Your task to perform on an android device: Open Maps and search for coffee Image 0: 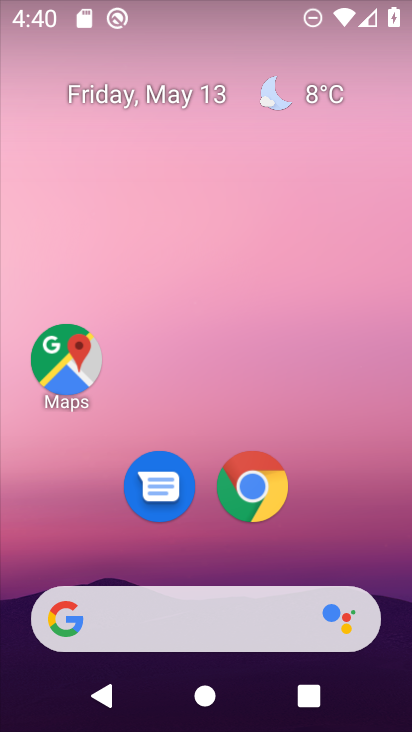
Step 0: click (90, 382)
Your task to perform on an android device: Open Maps and search for coffee Image 1: 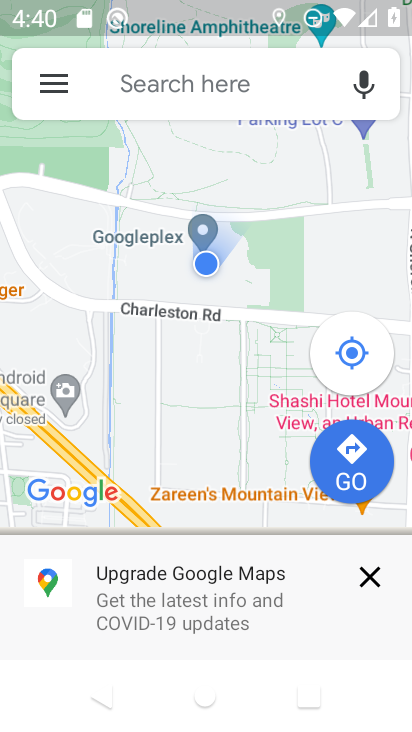
Step 1: click (61, 95)
Your task to perform on an android device: Open Maps and search for coffee Image 2: 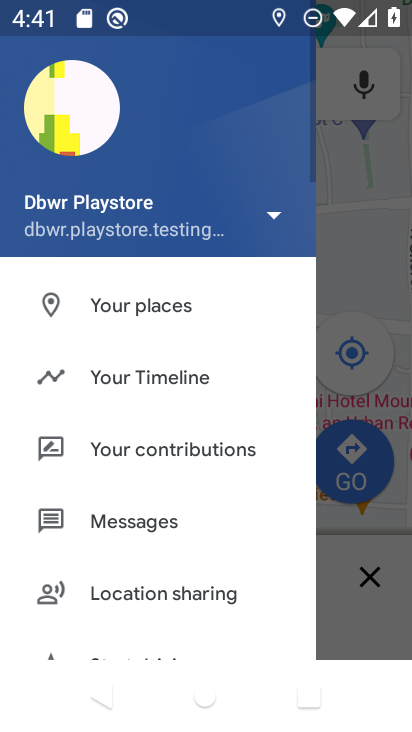
Step 2: click (345, 332)
Your task to perform on an android device: Open Maps and search for coffee Image 3: 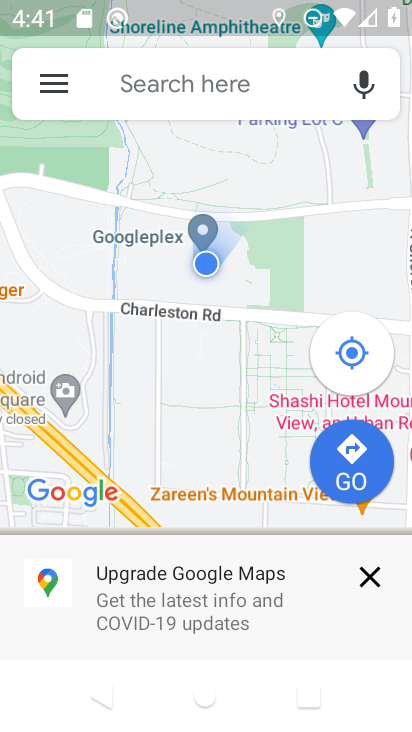
Step 3: click (326, 73)
Your task to perform on an android device: Open Maps and search for coffee Image 4: 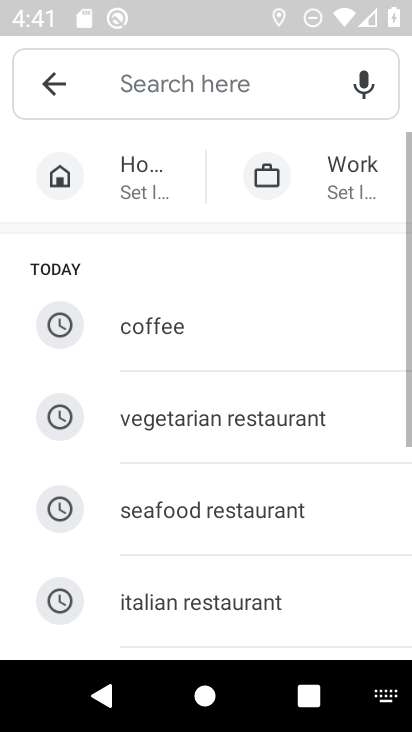
Step 4: click (267, 338)
Your task to perform on an android device: Open Maps and search for coffee Image 5: 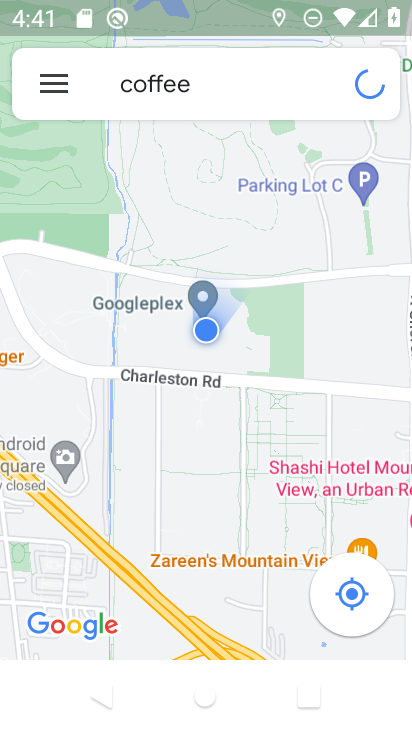
Step 5: task complete